Your task to perform on an android device: delete browsing data in the chrome app Image 0: 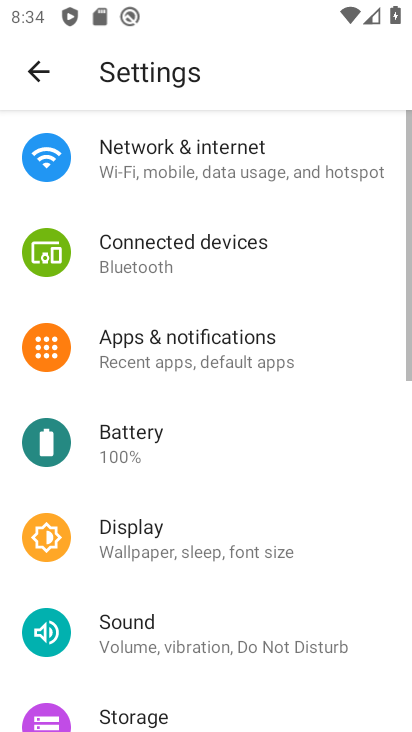
Step 0: press home button
Your task to perform on an android device: delete browsing data in the chrome app Image 1: 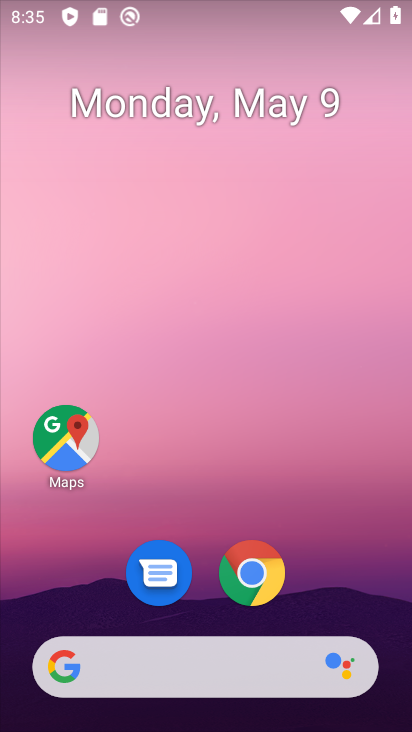
Step 1: click (262, 575)
Your task to perform on an android device: delete browsing data in the chrome app Image 2: 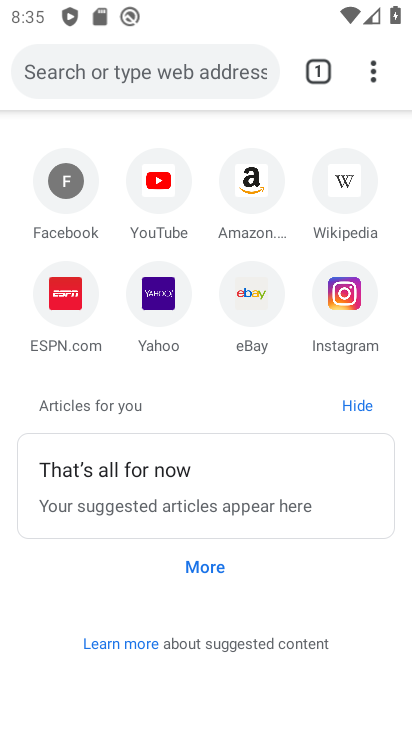
Step 2: click (371, 72)
Your task to perform on an android device: delete browsing data in the chrome app Image 3: 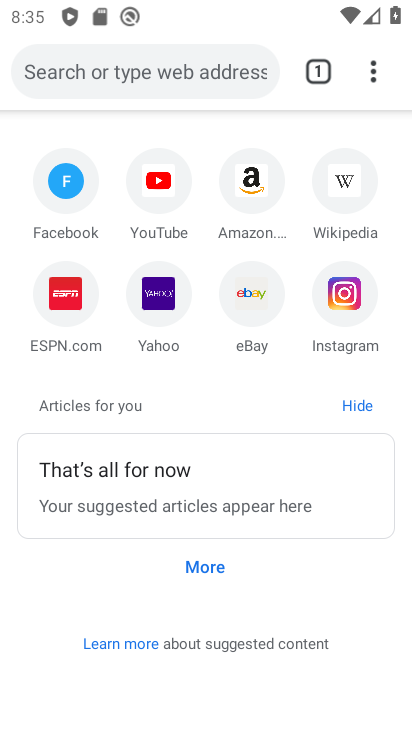
Step 3: click (371, 72)
Your task to perform on an android device: delete browsing data in the chrome app Image 4: 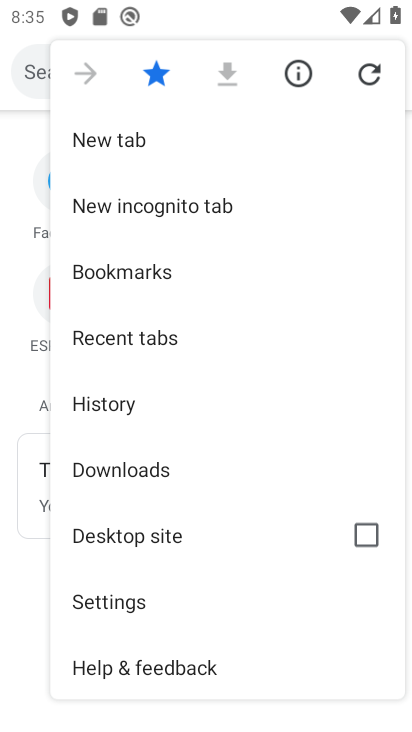
Step 4: click (140, 406)
Your task to perform on an android device: delete browsing data in the chrome app Image 5: 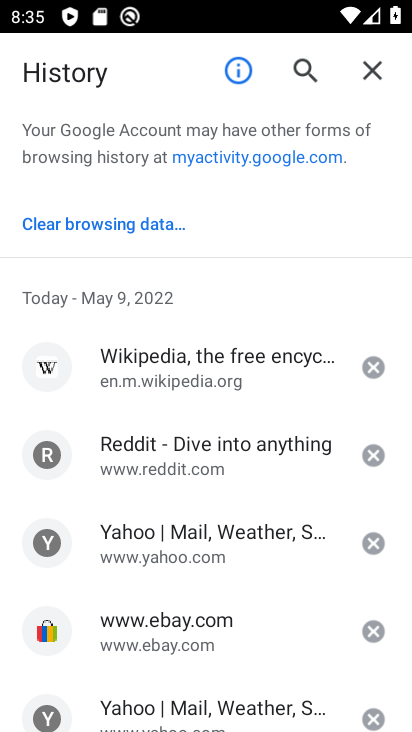
Step 5: click (122, 221)
Your task to perform on an android device: delete browsing data in the chrome app Image 6: 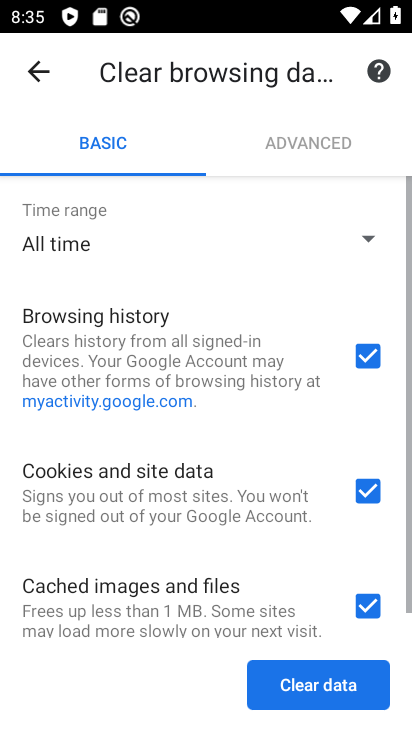
Step 6: click (307, 688)
Your task to perform on an android device: delete browsing data in the chrome app Image 7: 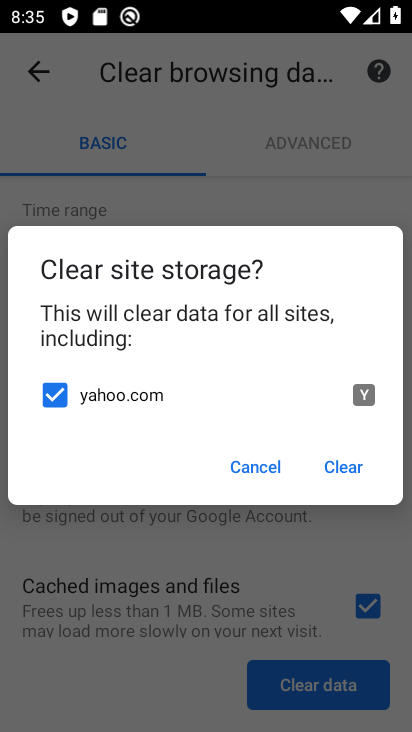
Step 7: click (352, 457)
Your task to perform on an android device: delete browsing data in the chrome app Image 8: 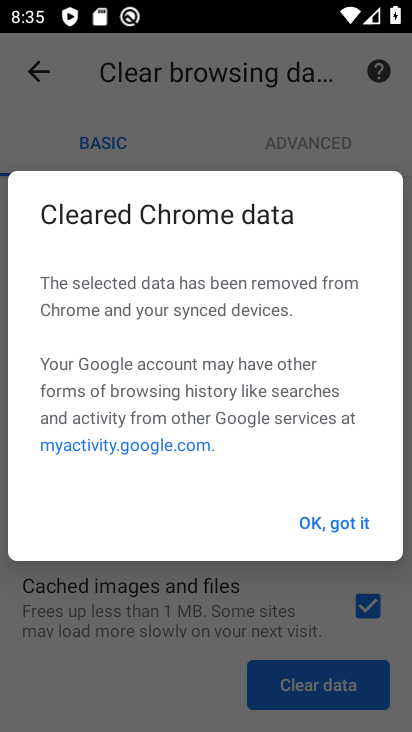
Step 8: click (328, 515)
Your task to perform on an android device: delete browsing data in the chrome app Image 9: 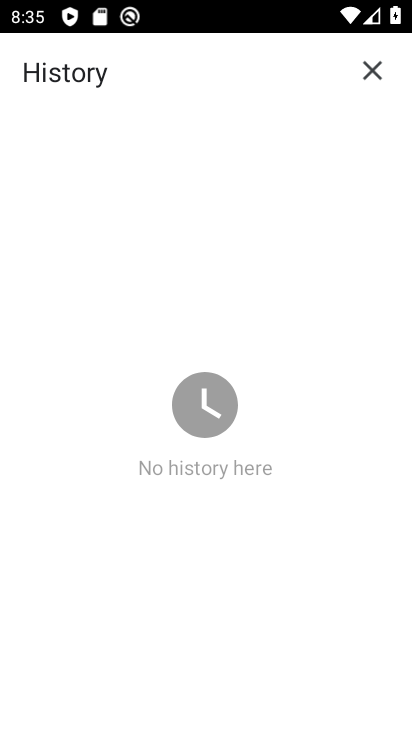
Step 9: task complete